Your task to perform on an android device: turn on showing notifications on the lock screen Image 0: 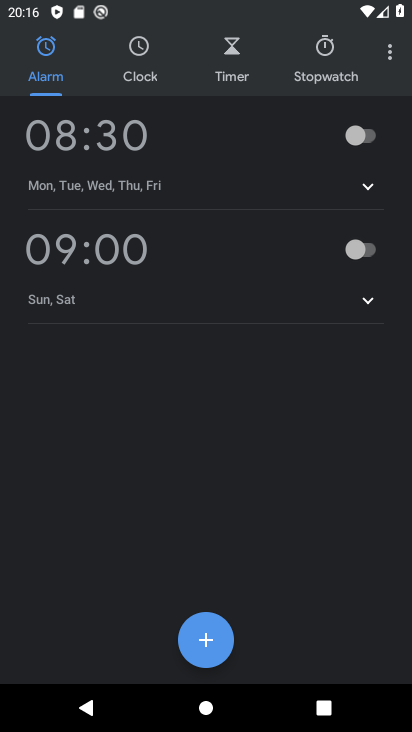
Step 0: press home button
Your task to perform on an android device: turn on showing notifications on the lock screen Image 1: 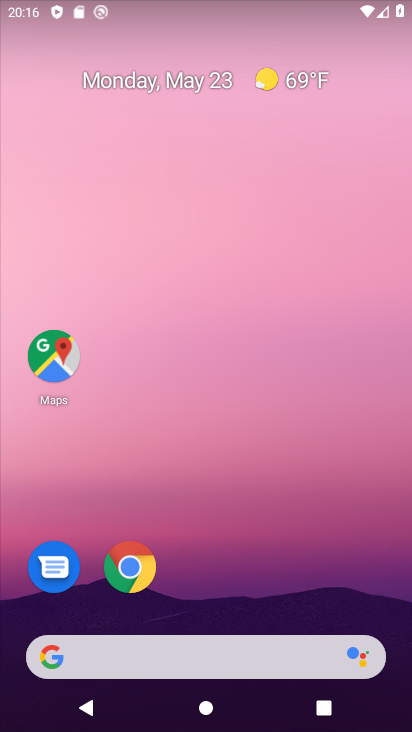
Step 1: drag from (190, 590) to (348, 3)
Your task to perform on an android device: turn on showing notifications on the lock screen Image 2: 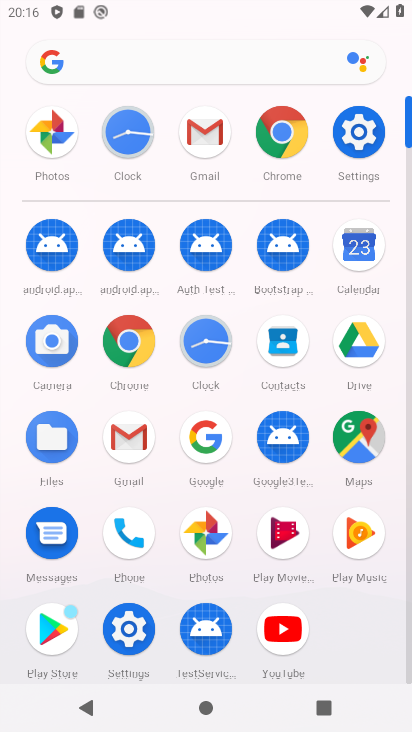
Step 2: click (136, 625)
Your task to perform on an android device: turn on showing notifications on the lock screen Image 3: 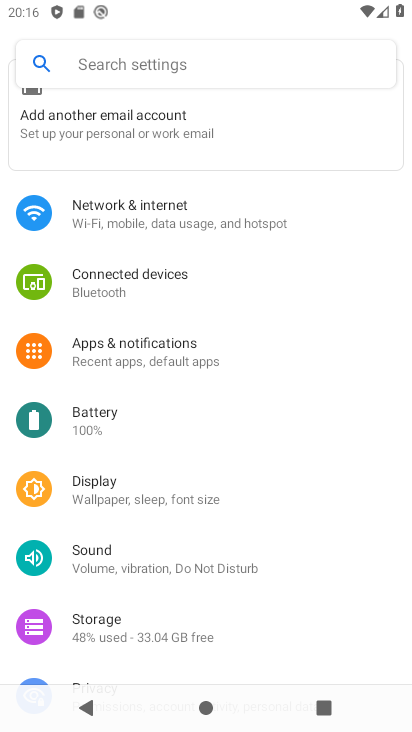
Step 3: click (184, 366)
Your task to perform on an android device: turn on showing notifications on the lock screen Image 4: 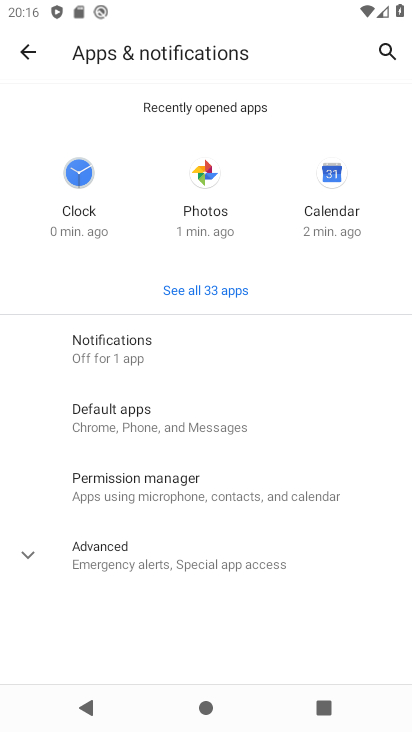
Step 4: click (146, 355)
Your task to perform on an android device: turn on showing notifications on the lock screen Image 5: 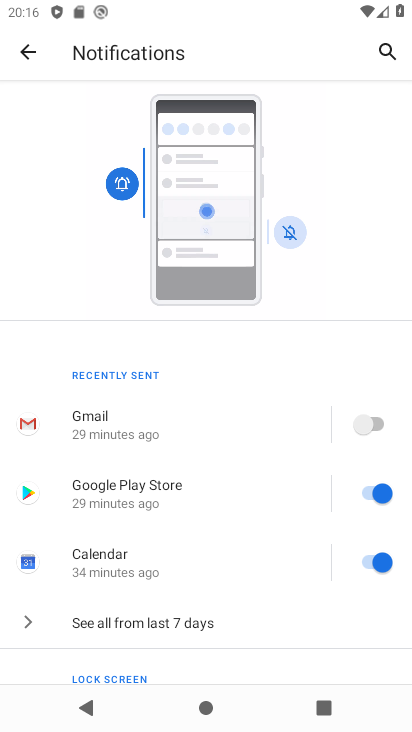
Step 5: drag from (171, 509) to (181, 222)
Your task to perform on an android device: turn on showing notifications on the lock screen Image 6: 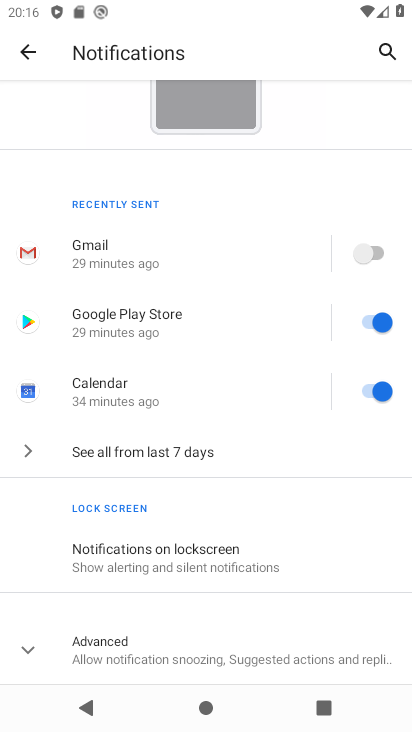
Step 6: click (174, 566)
Your task to perform on an android device: turn on showing notifications on the lock screen Image 7: 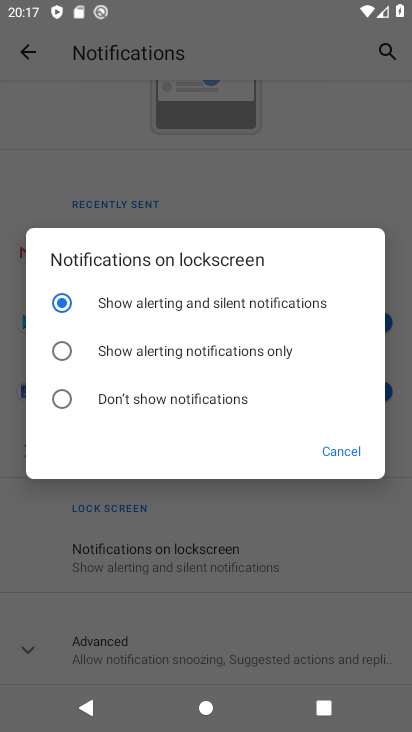
Step 7: task complete